Your task to perform on an android device: Toggle the flashlight Image 0: 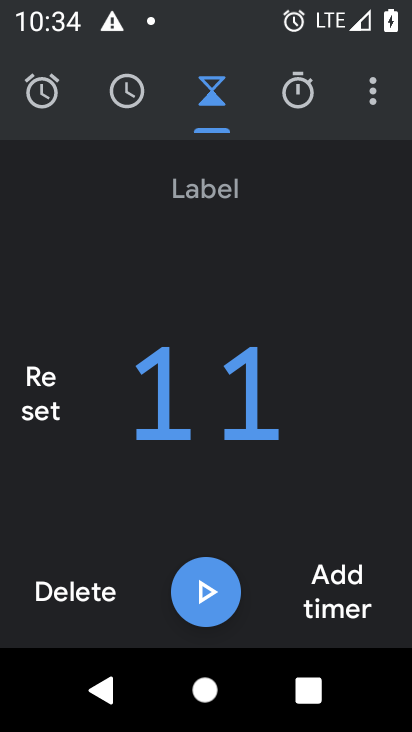
Step 0: press home button
Your task to perform on an android device: Toggle the flashlight Image 1: 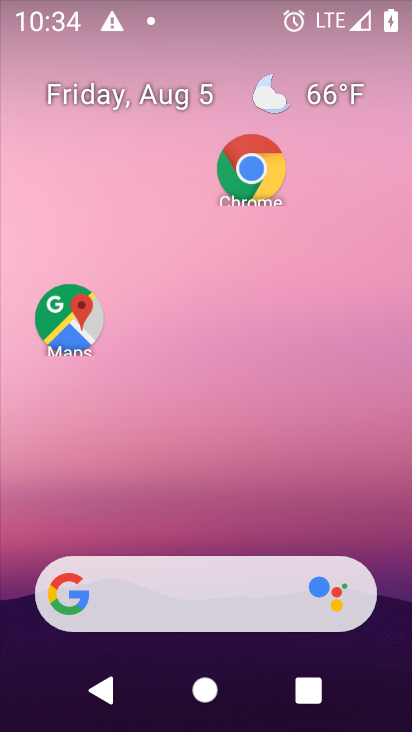
Step 1: drag from (204, 469) to (184, 96)
Your task to perform on an android device: Toggle the flashlight Image 2: 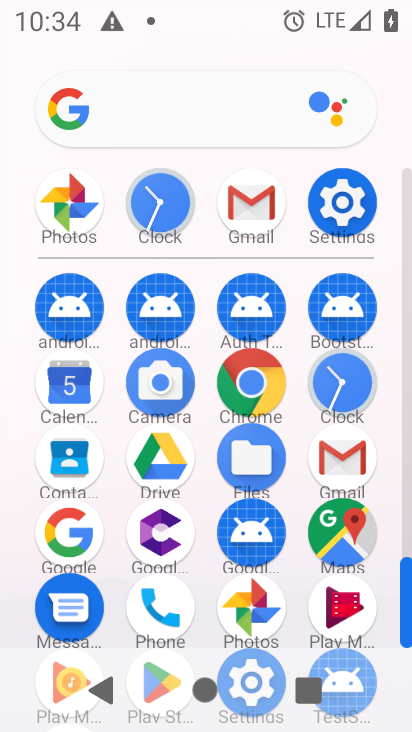
Step 2: click (362, 220)
Your task to perform on an android device: Toggle the flashlight Image 3: 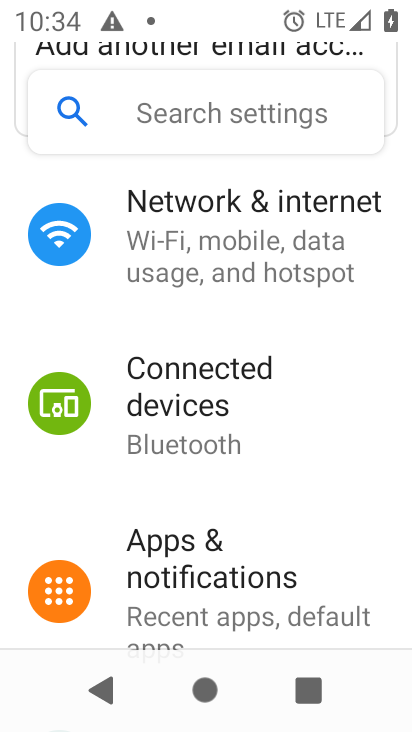
Step 3: task complete